Your task to perform on an android device: Search for Italian restaurants on Maps Image 0: 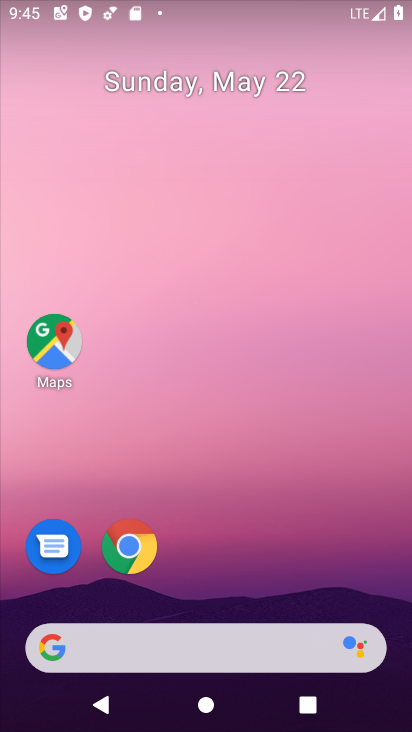
Step 0: drag from (184, 606) to (247, 102)
Your task to perform on an android device: Search for Italian restaurants on Maps Image 1: 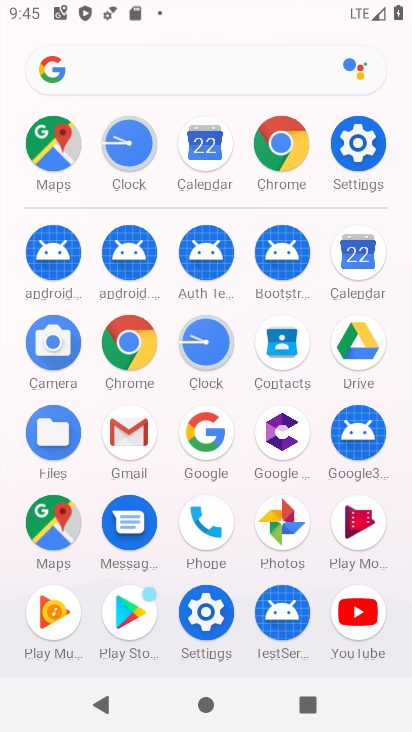
Step 1: click (58, 519)
Your task to perform on an android device: Search for Italian restaurants on Maps Image 2: 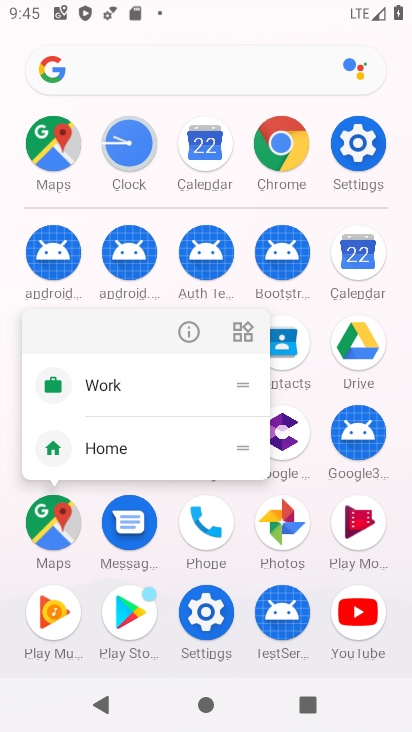
Step 2: click (186, 329)
Your task to perform on an android device: Search for Italian restaurants on Maps Image 3: 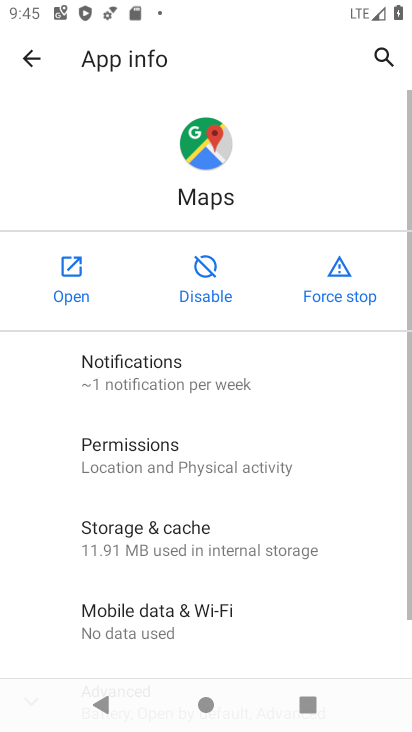
Step 3: click (69, 287)
Your task to perform on an android device: Search for Italian restaurants on Maps Image 4: 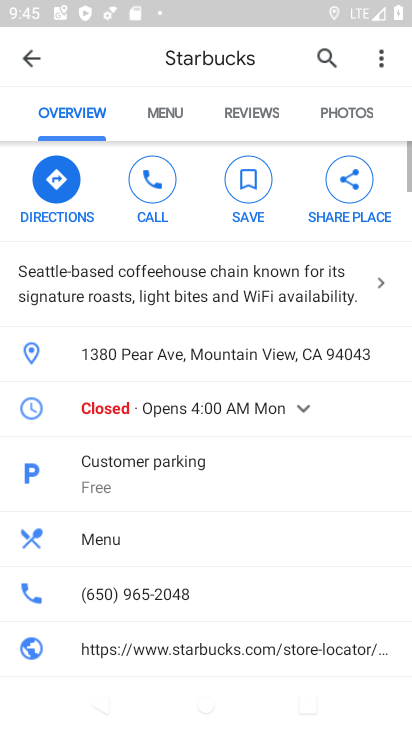
Step 4: drag from (198, 271) to (263, 720)
Your task to perform on an android device: Search for Italian restaurants on Maps Image 5: 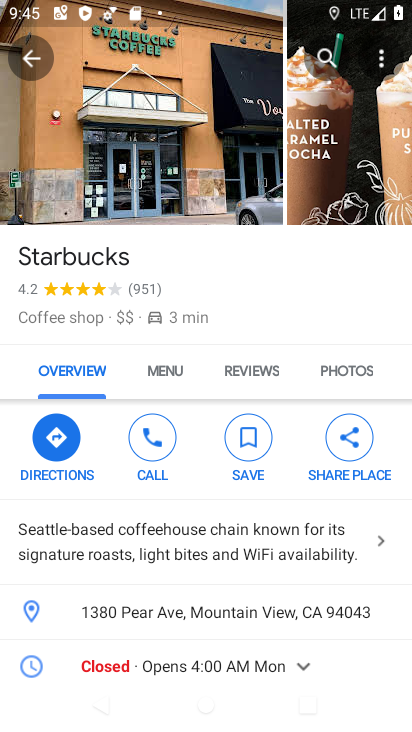
Step 5: click (27, 61)
Your task to perform on an android device: Search for Italian restaurants on Maps Image 6: 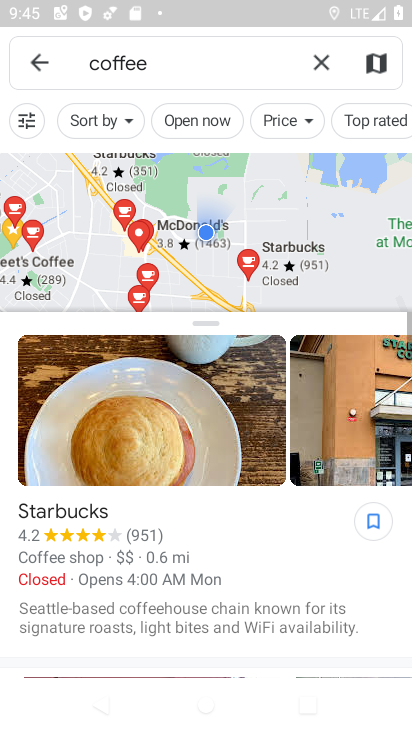
Step 6: click (315, 64)
Your task to perform on an android device: Search for Italian restaurants on Maps Image 7: 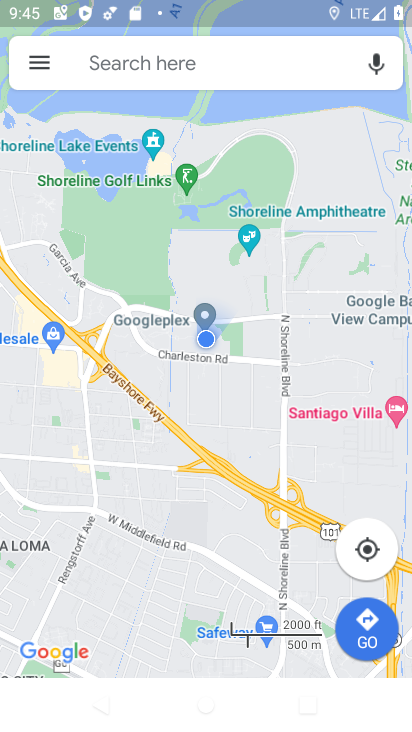
Step 7: click (210, 52)
Your task to perform on an android device: Search for Italian restaurants on Maps Image 8: 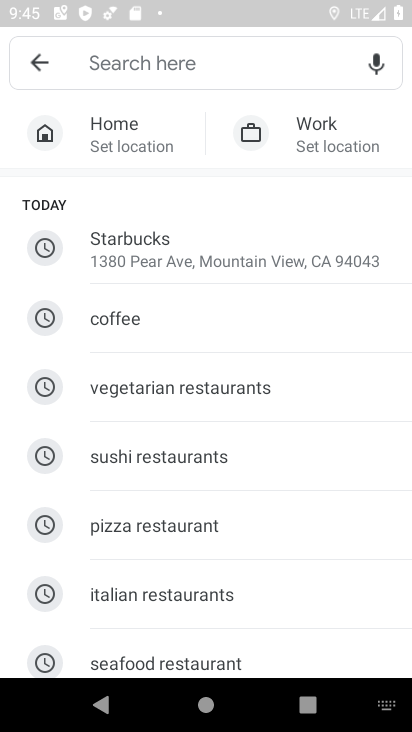
Step 8: click (149, 598)
Your task to perform on an android device: Search for Italian restaurants on Maps Image 9: 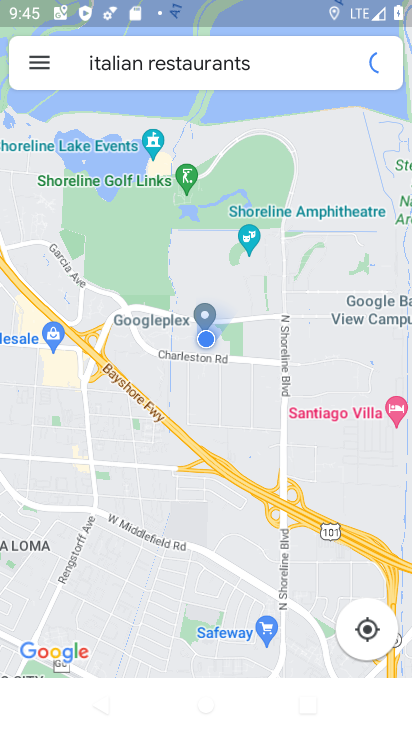
Step 9: task complete